Your task to perform on an android device: change the clock style Image 0: 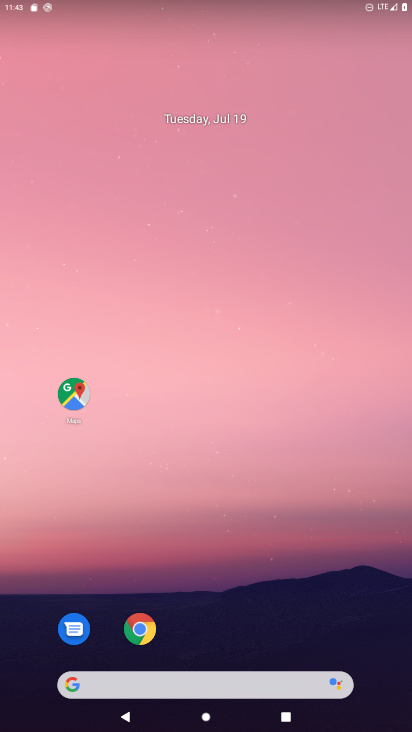
Step 0: drag from (181, 645) to (183, 256)
Your task to perform on an android device: change the clock style Image 1: 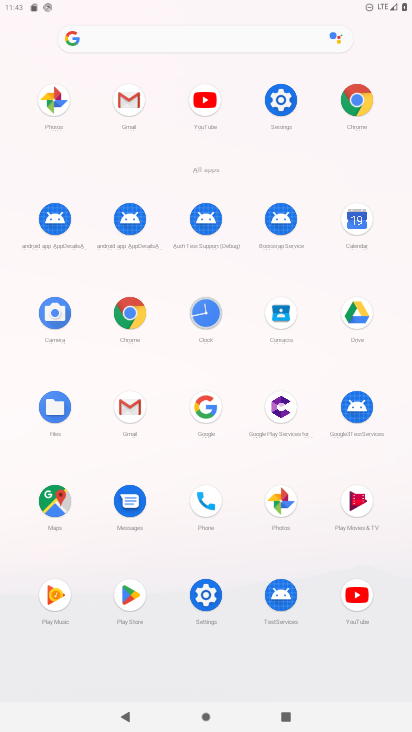
Step 1: click (191, 320)
Your task to perform on an android device: change the clock style Image 2: 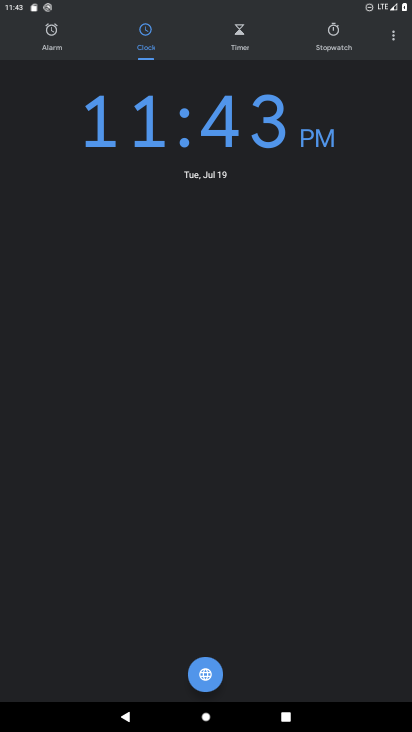
Step 2: click (391, 33)
Your task to perform on an android device: change the clock style Image 3: 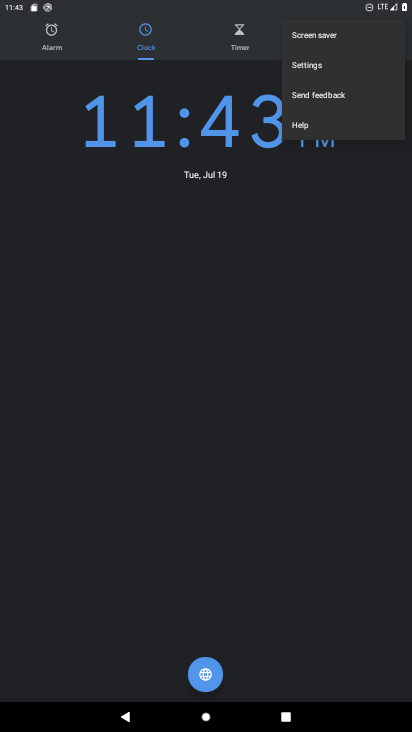
Step 3: click (294, 83)
Your task to perform on an android device: change the clock style Image 4: 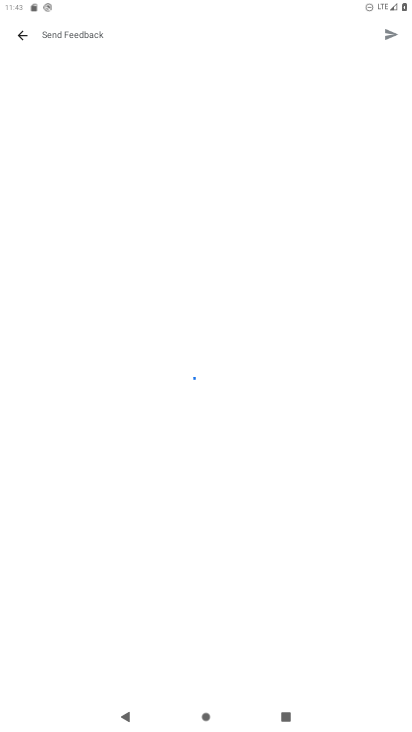
Step 4: click (32, 35)
Your task to perform on an android device: change the clock style Image 5: 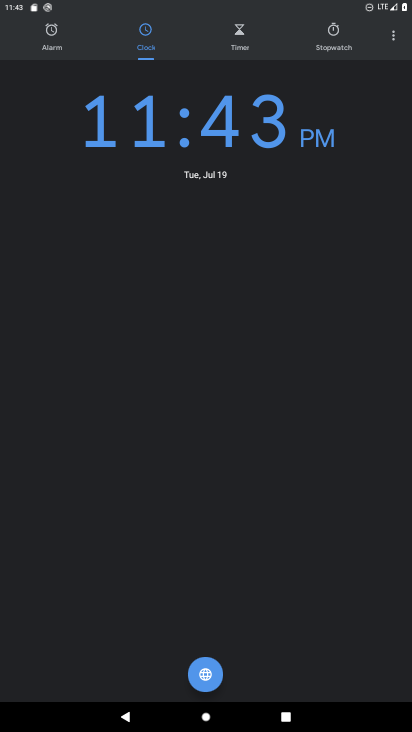
Step 5: click (387, 32)
Your task to perform on an android device: change the clock style Image 6: 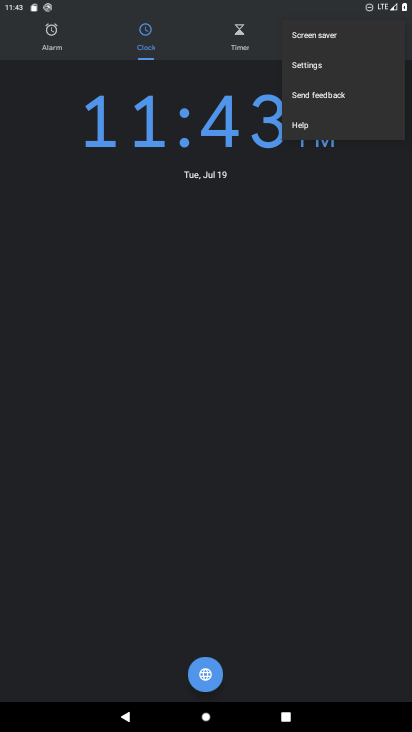
Step 6: click (321, 68)
Your task to perform on an android device: change the clock style Image 7: 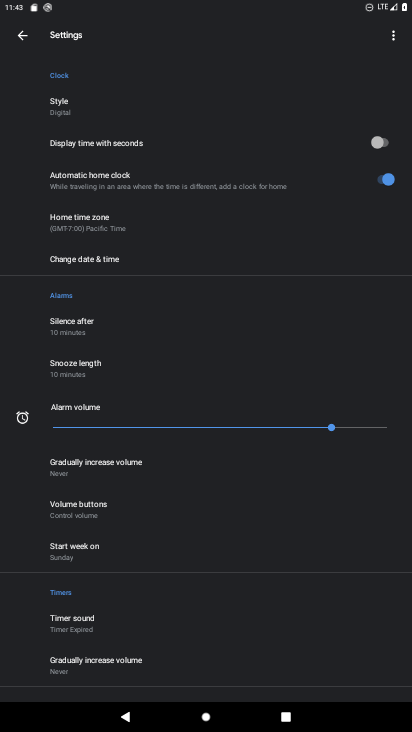
Step 7: click (63, 107)
Your task to perform on an android device: change the clock style Image 8: 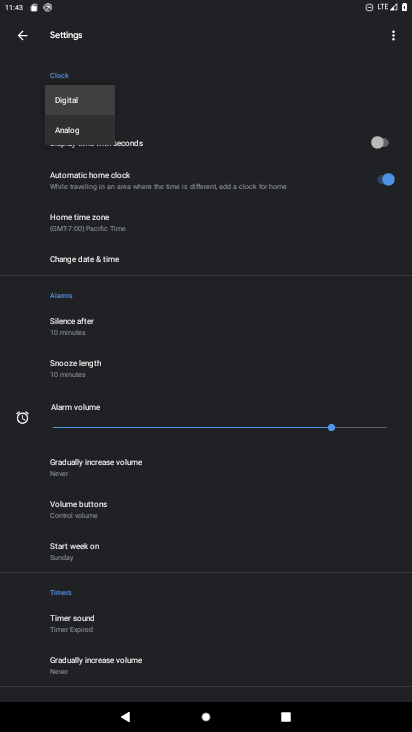
Step 8: click (67, 141)
Your task to perform on an android device: change the clock style Image 9: 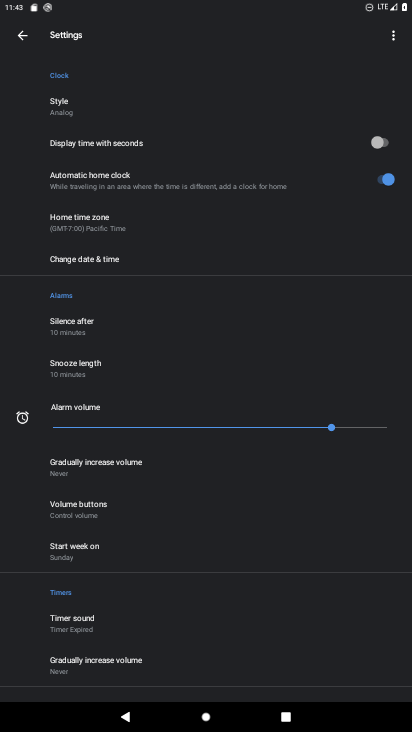
Step 9: task complete